Your task to perform on an android device: Open the map Image 0: 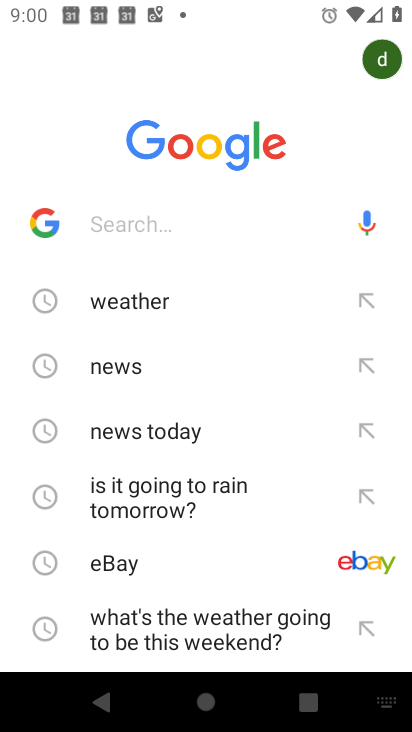
Step 0: press home button
Your task to perform on an android device: Open the map Image 1: 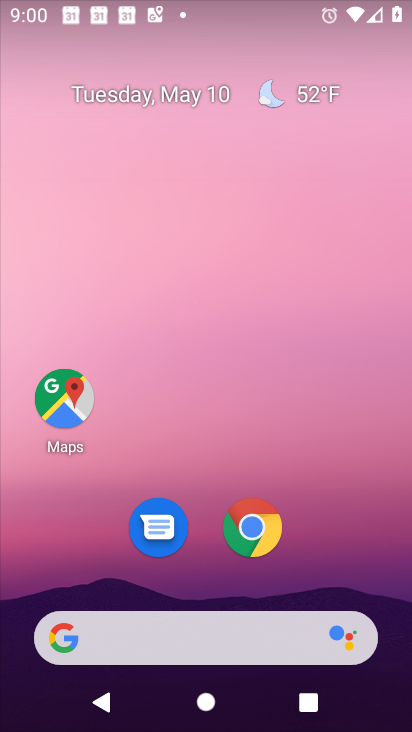
Step 1: click (48, 397)
Your task to perform on an android device: Open the map Image 2: 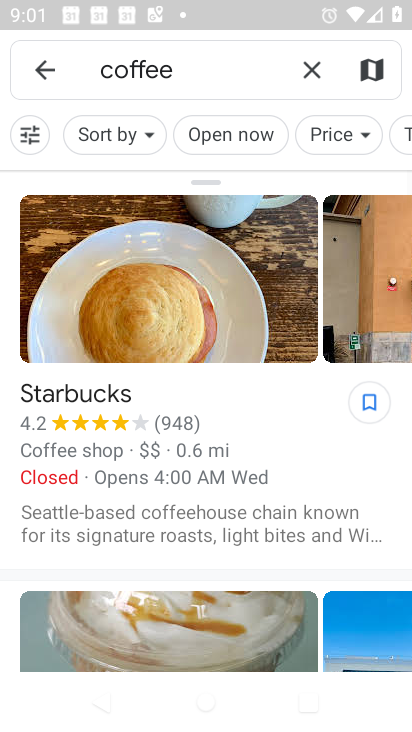
Step 2: task complete